Your task to perform on an android device: toggle sleep mode Image 0: 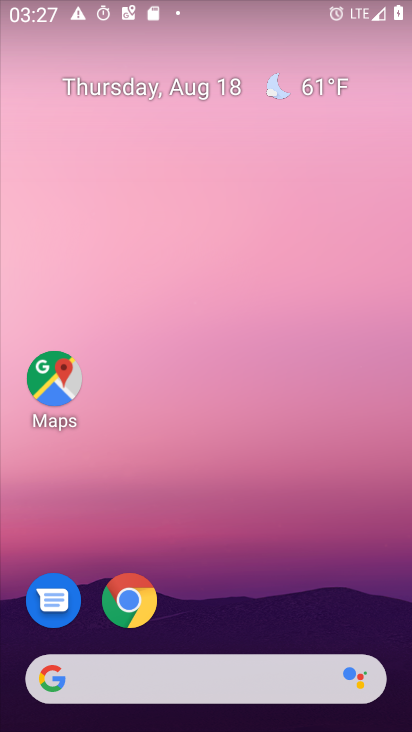
Step 0: press home button
Your task to perform on an android device: toggle sleep mode Image 1: 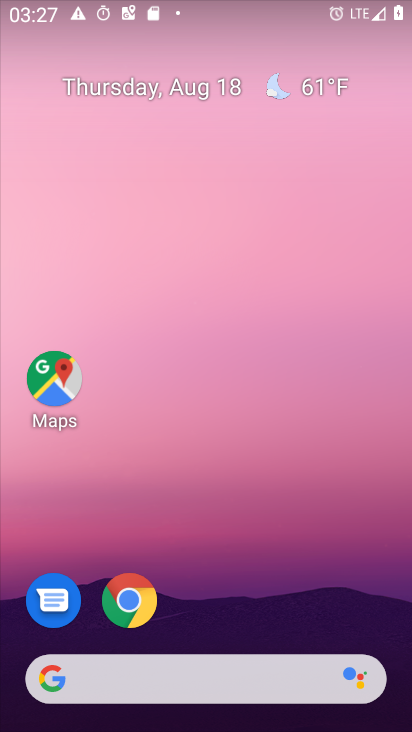
Step 1: drag from (250, 612) to (361, 152)
Your task to perform on an android device: toggle sleep mode Image 2: 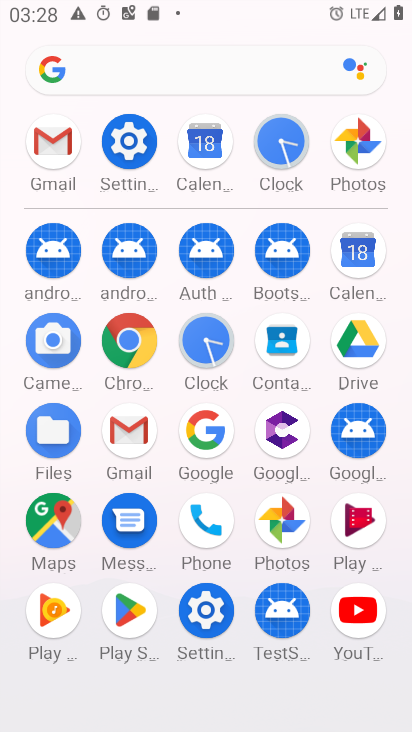
Step 2: click (137, 149)
Your task to perform on an android device: toggle sleep mode Image 3: 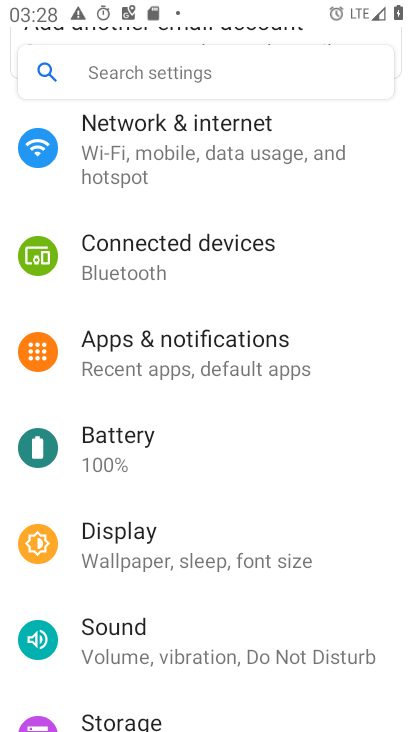
Step 3: click (80, 549)
Your task to perform on an android device: toggle sleep mode Image 4: 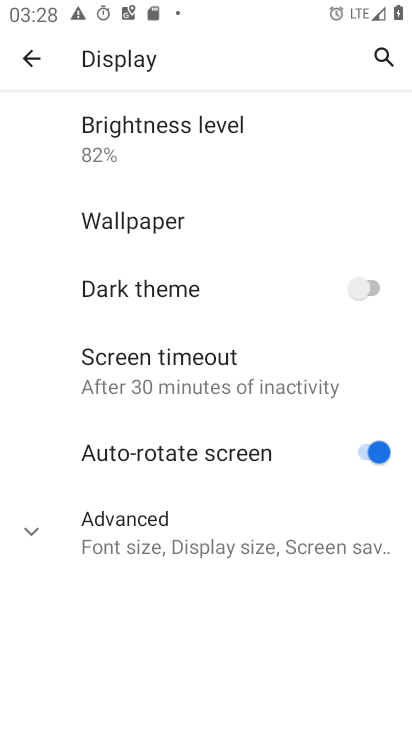
Step 4: task complete